Your task to perform on an android device: uninstall "Fetch Rewards" Image 0: 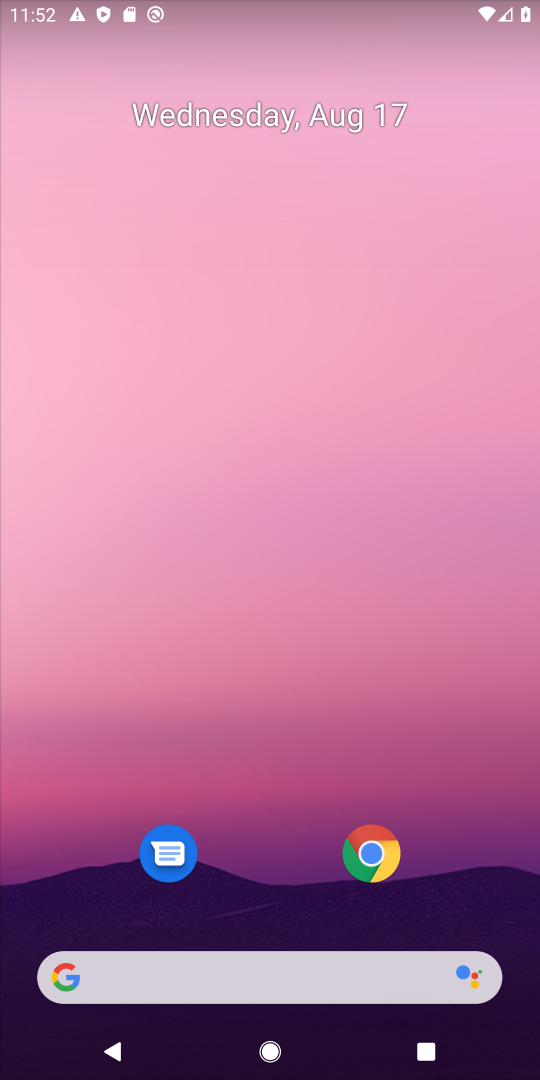
Step 0: drag from (152, 949) to (243, 219)
Your task to perform on an android device: uninstall "Fetch Rewards" Image 1: 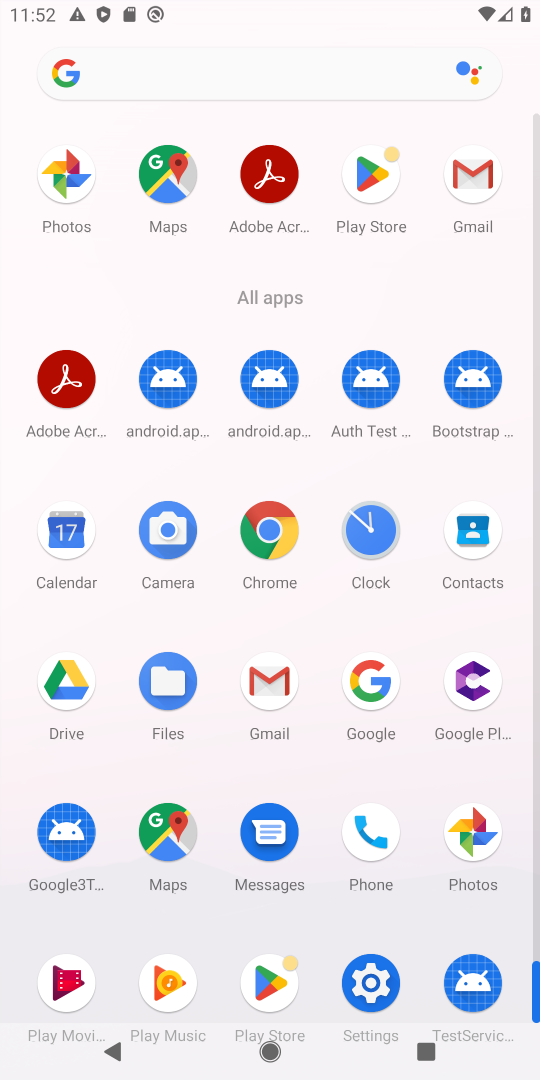
Step 1: task complete